Your task to perform on an android device: Open calendar and show me the fourth week of next month Image 0: 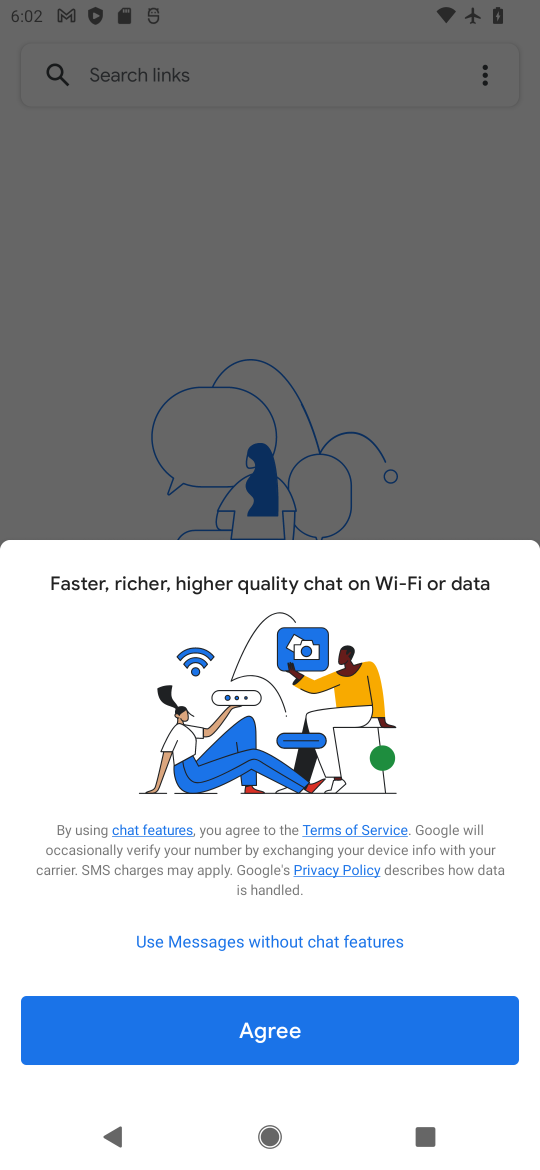
Step 0: press home button
Your task to perform on an android device: Open calendar and show me the fourth week of next month Image 1: 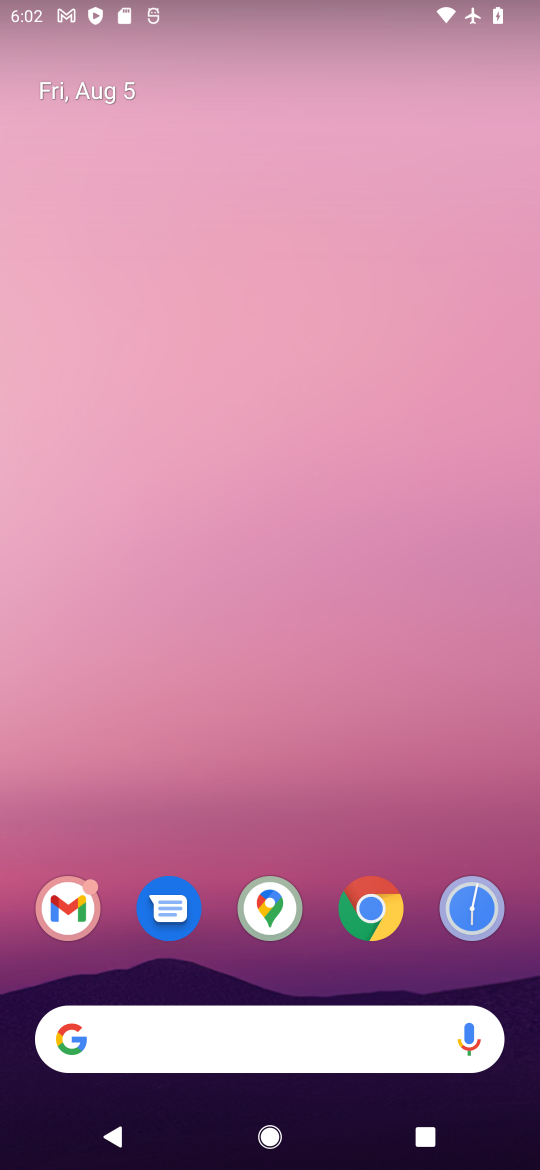
Step 1: drag from (268, 895) to (259, 286)
Your task to perform on an android device: Open calendar and show me the fourth week of next month Image 2: 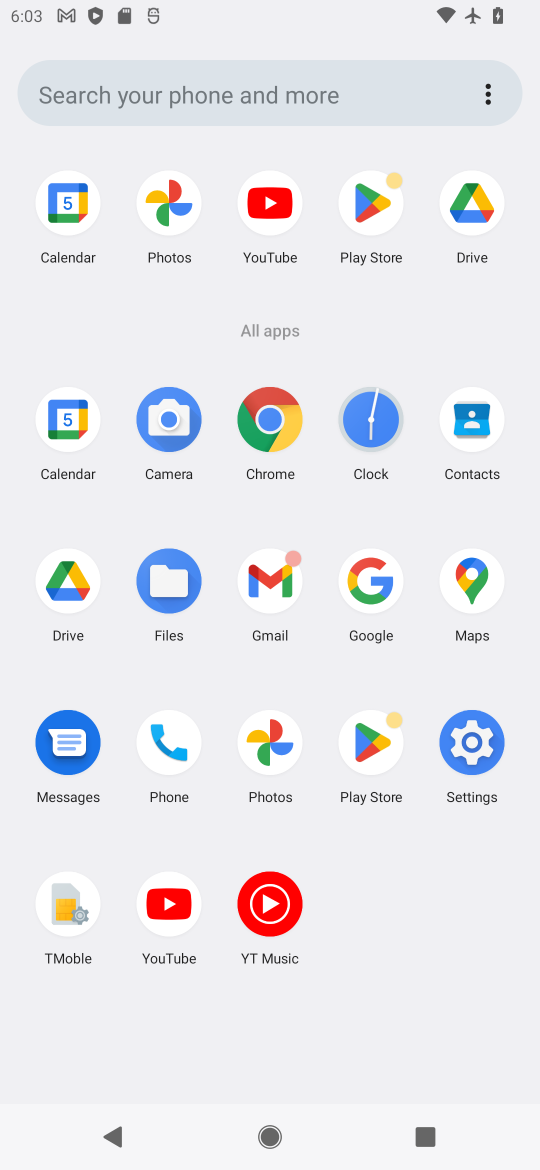
Step 2: click (73, 453)
Your task to perform on an android device: Open calendar and show me the fourth week of next month Image 3: 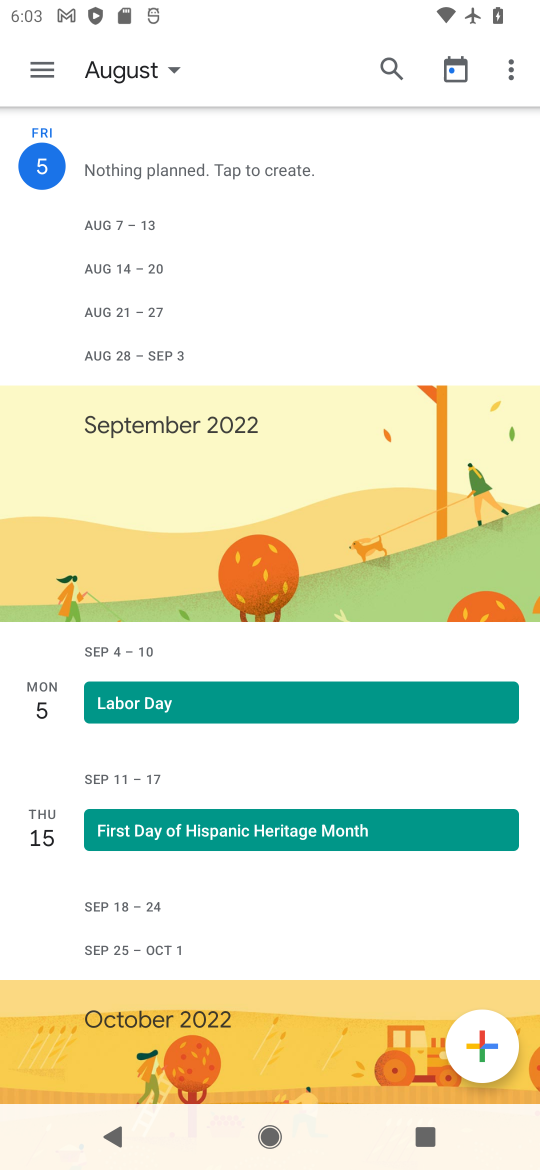
Step 3: click (96, 85)
Your task to perform on an android device: Open calendar and show me the fourth week of next month Image 4: 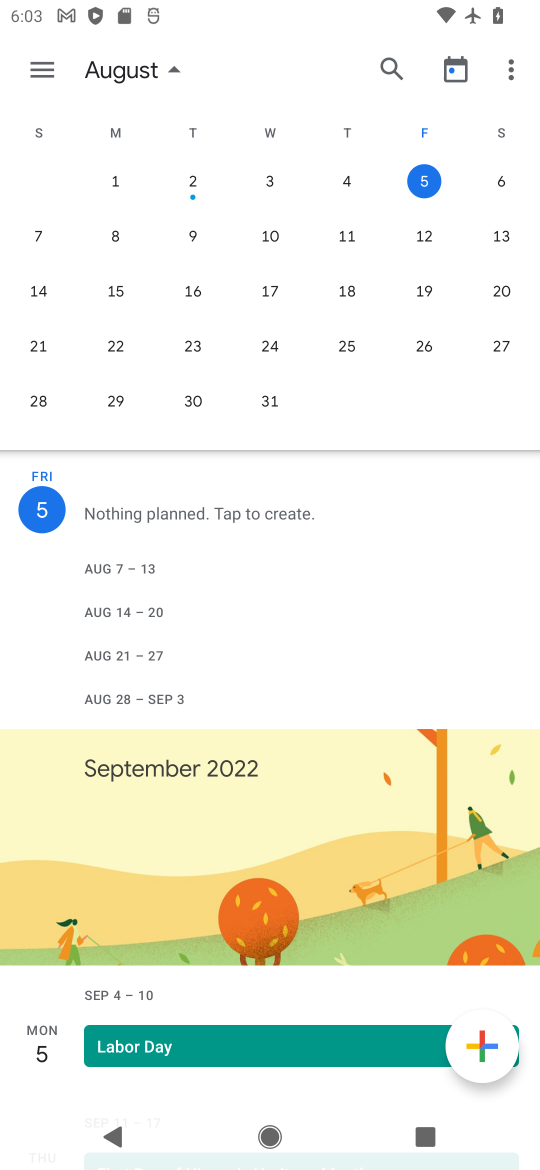
Step 4: click (44, 67)
Your task to perform on an android device: Open calendar and show me the fourth week of next month Image 5: 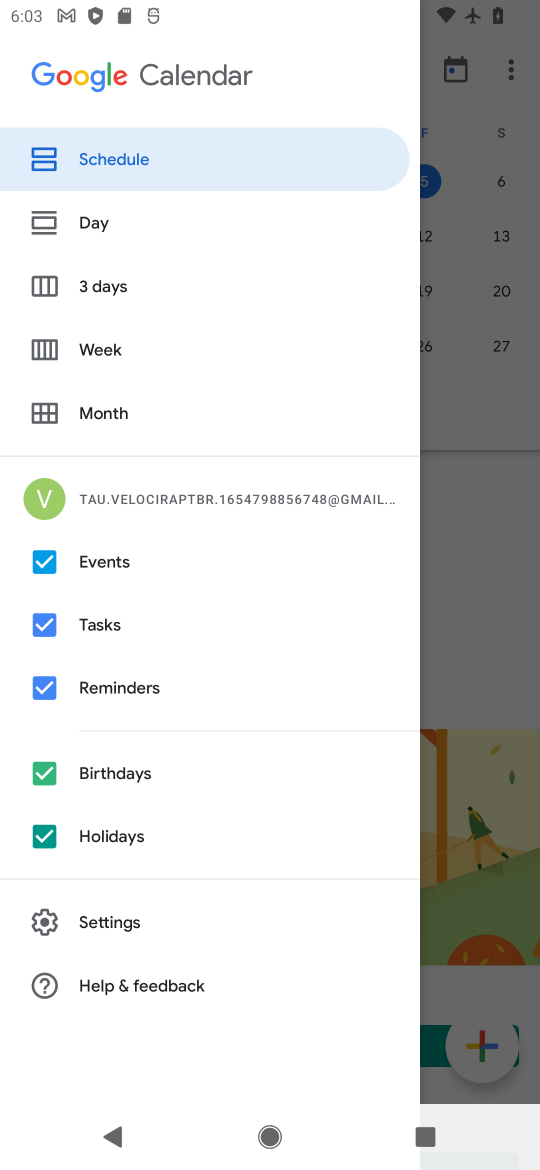
Step 5: click (101, 367)
Your task to perform on an android device: Open calendar and show me the fourth week of next month Image 6: 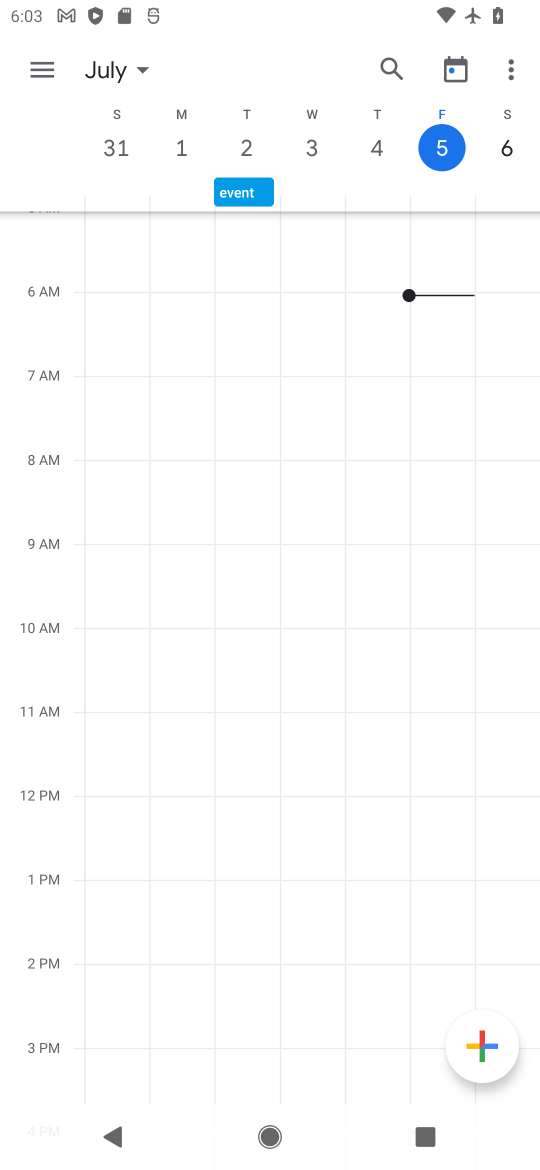
Step 6: click (134, 79)
Your task to perform on an android device: Open calendar and show me the fourth week of next month Image 7: 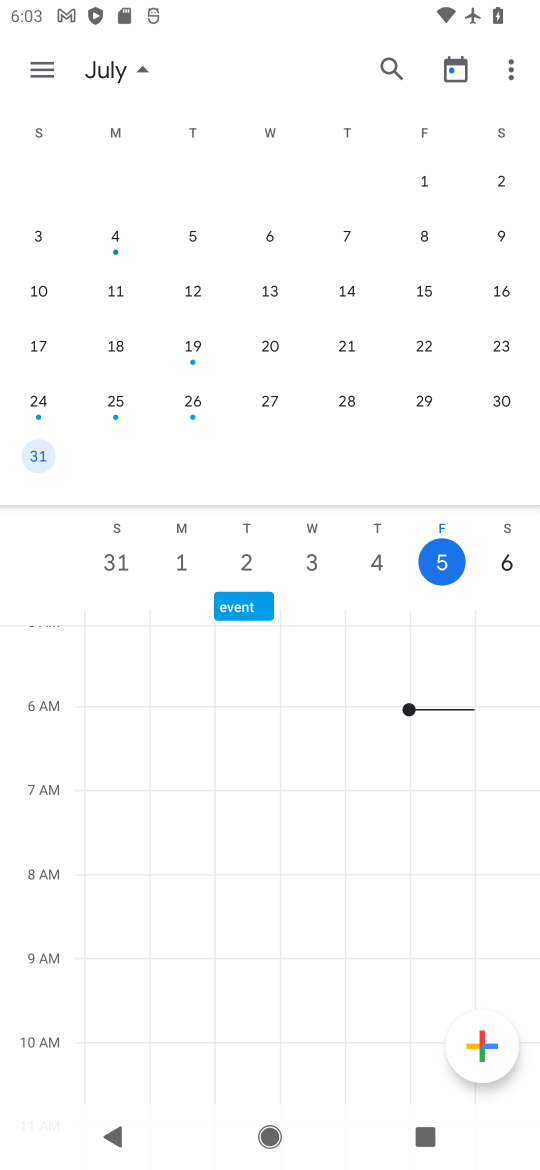
Step 7: click (275, 313)
Your task to perform on an android device: Open calendar and show me the fourth week of next month Image 8: 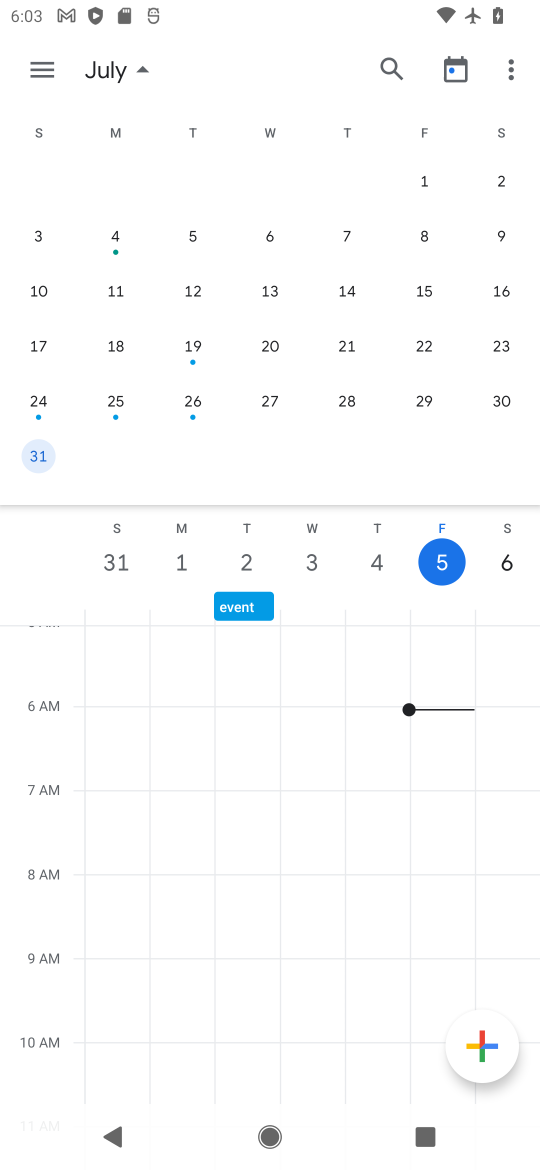
Step 8: drag from (370, 293) to (58, 243)
Your task to perform on an android device: Open calendar and show me the fourth week of next month Image 9: 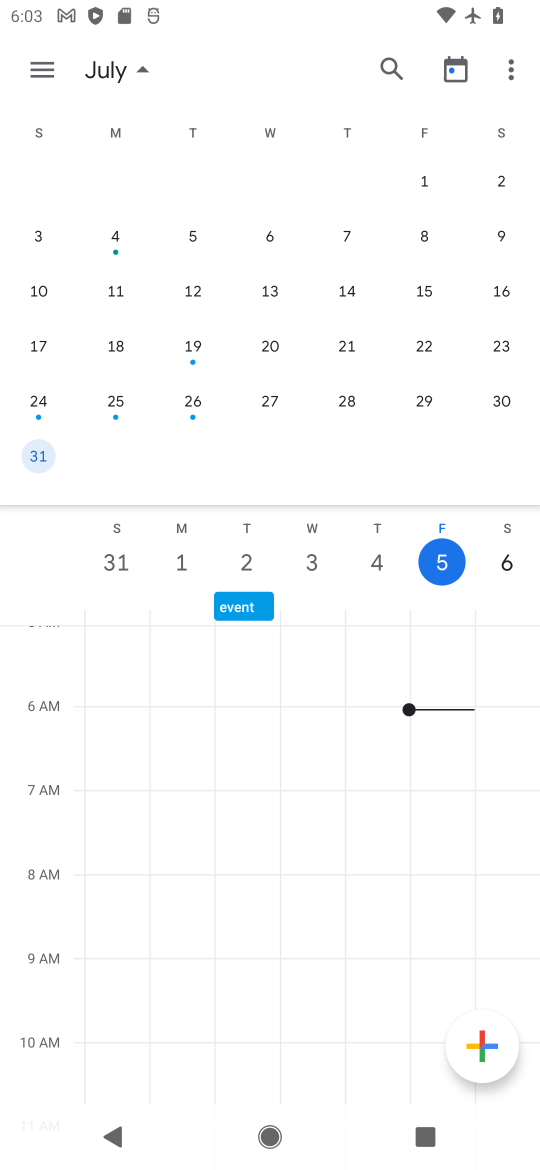
Step 9: drag from (346, 298) to (250, 218)
Your task to perform on an android device: Open calendar and show me the fourth week of next month Image 10: 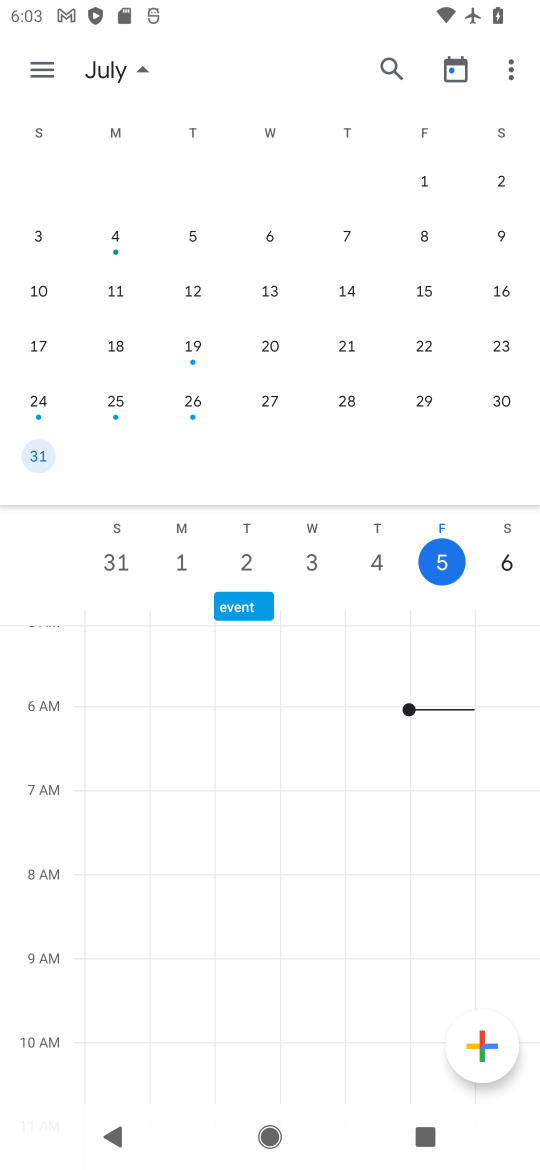
Step 10: drag from (180, 303) to (105, 248)
Your task to perform on an android device: Open calendar and show me the fourth week of next month Image 11: 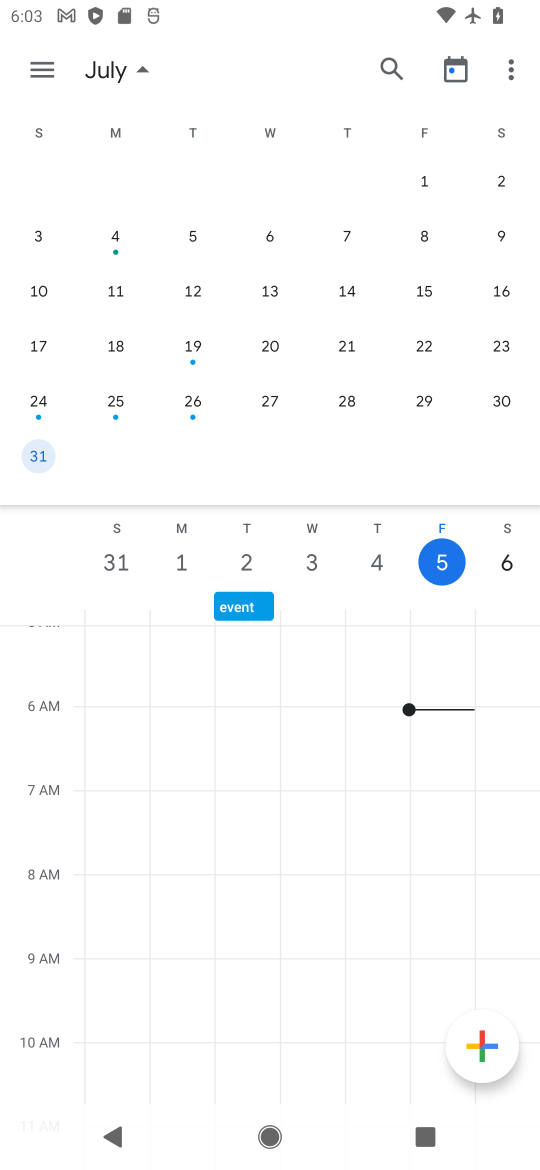
Step 11: drag from (420, 274) to (19, 202)
Your task to perform on an android device: Open calendar and show me the fourth week of next month Image 12: 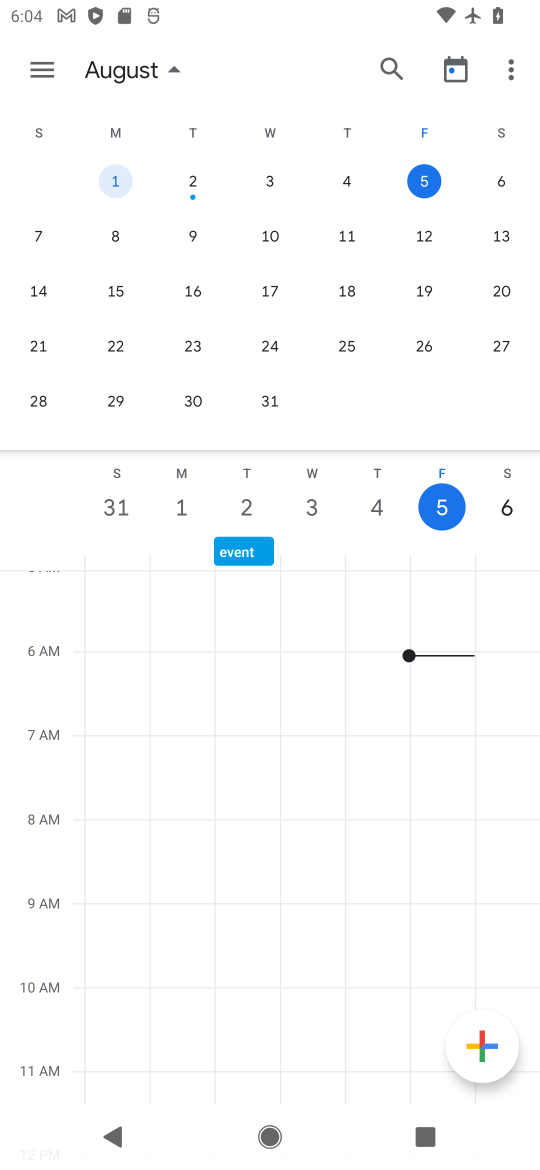
Step 12: drag from (23, 306) to (155, 266)
Your task to perform on an android device: Open calendar and show me the fourth week of next month Image 13: 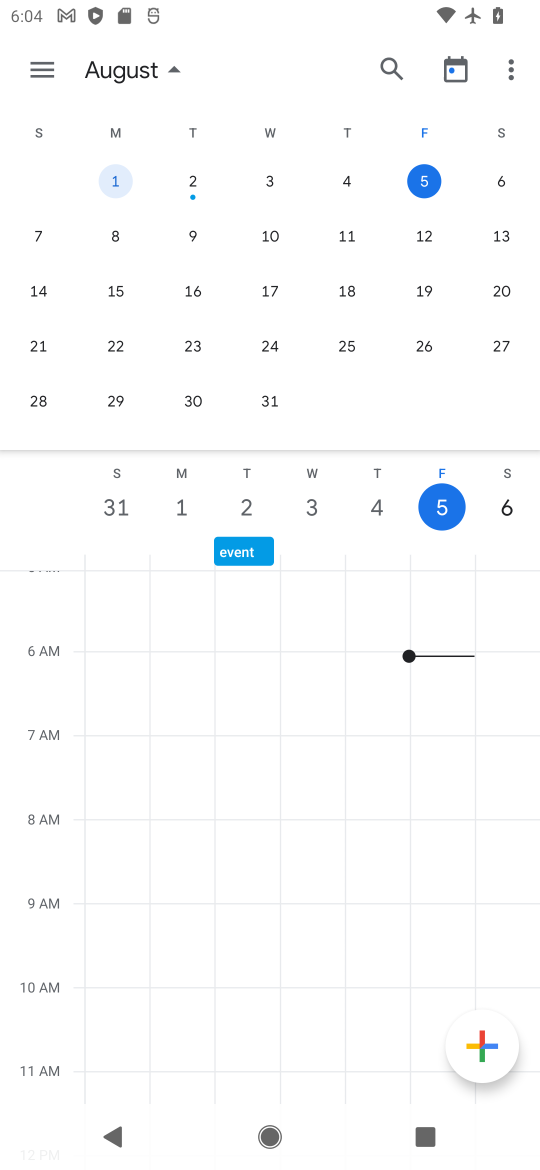
Step 13: drag from (330, 300) to (81, 248)
Your task to perform on an android device: Open calendar and show me the fourth week of next month Image 14: 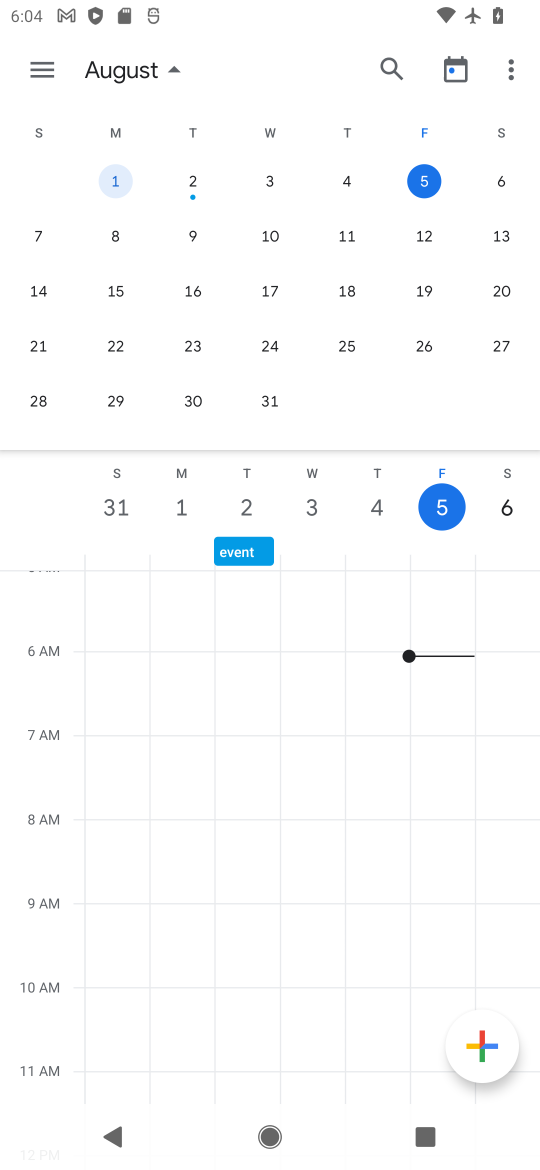
Step 14: drag from (477, 303) to (15, 263)
Your task to perform on an android device: Open calendar and show me the fourth week of next month Image 15: 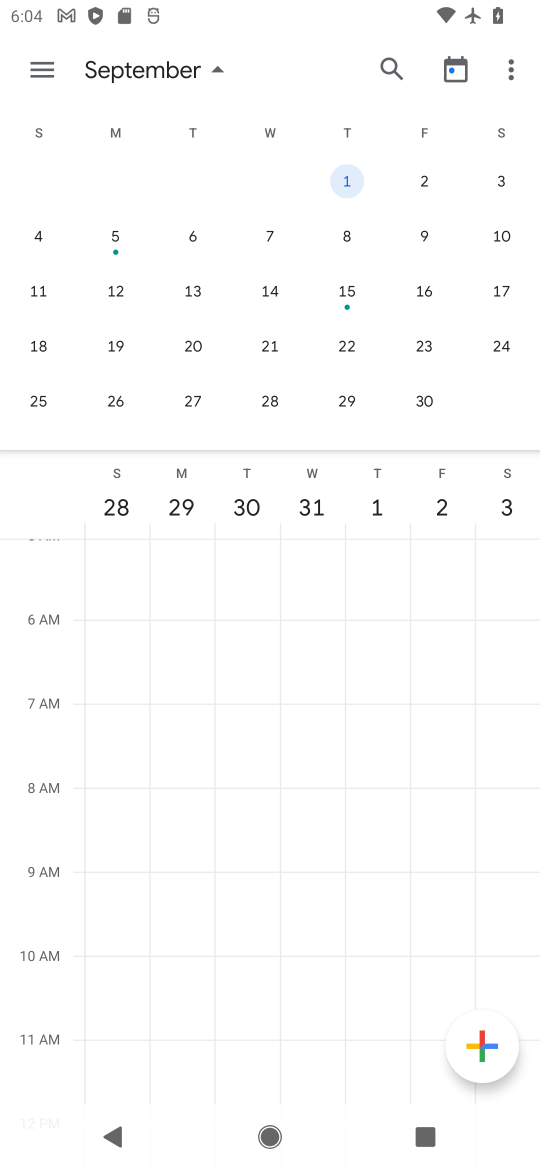
Step 15: click (37, 357)
Your task to perform on an android device: Open calendar and show me the fourth week of next month Image 16: 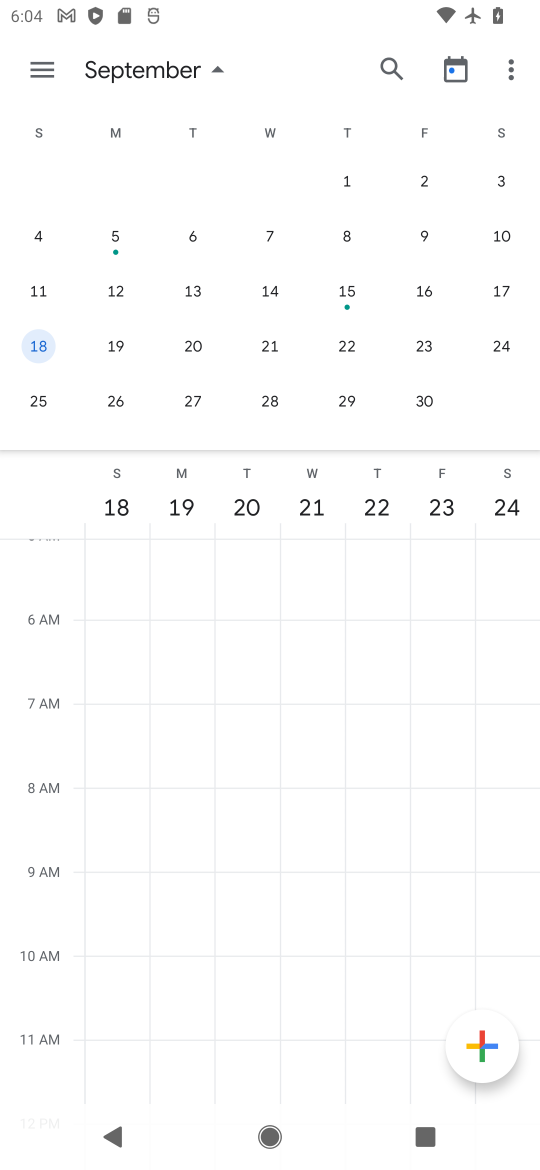
Step 16: task complete